Your task to perform on an android device: change the upload size in google photos Image 0: 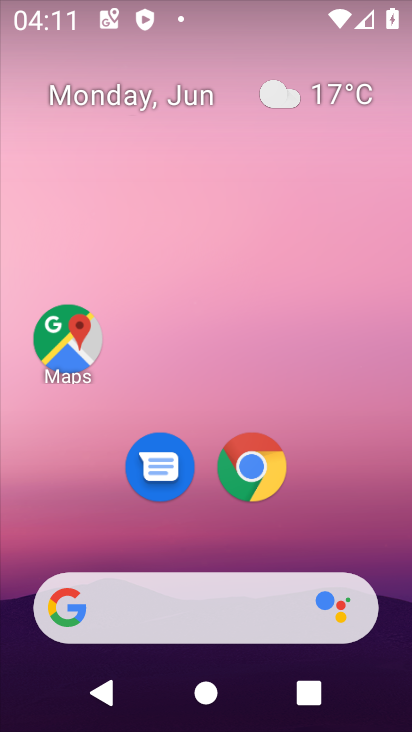
Step 0: drag from (236, 535) to (390, 0)
Your task to perform on an android device: change the upload size in google photos Image 1: 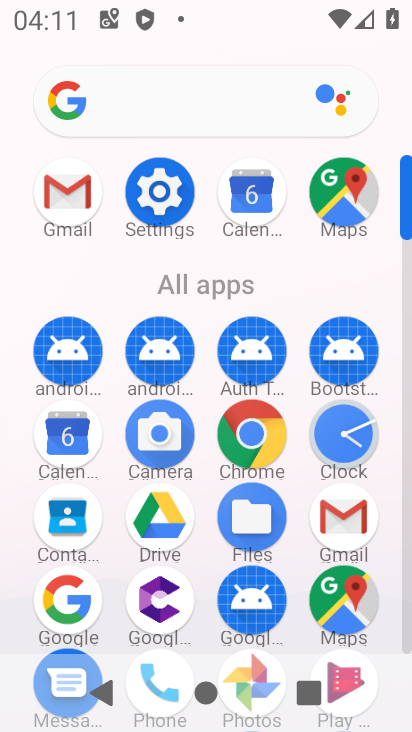
Step 1: drag from (205, 589) to (210, 237)
Your task to perform on an android device: change the upload size in google photos Image 2: 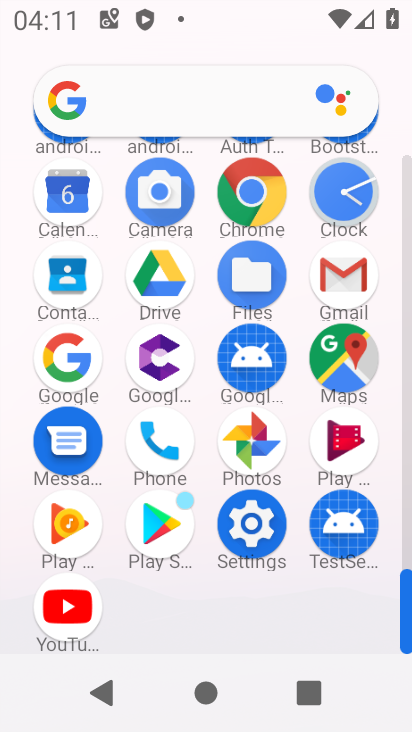
Step 2: click (245, 450)
Your task to perform on an android device: change the upload size in google photos Image 3: 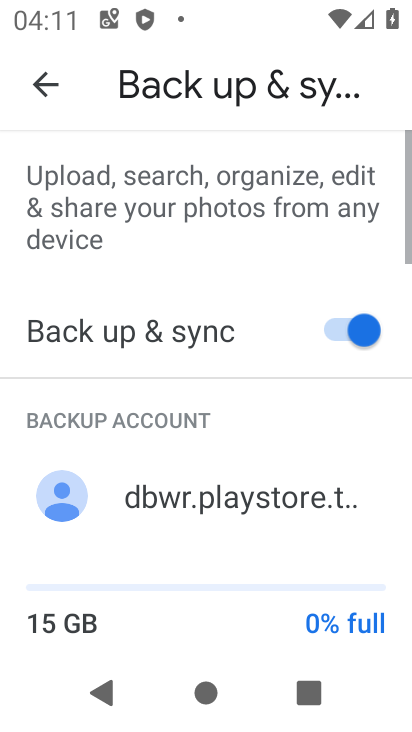
Step 3: click (46, 89)
Your task to perform on an android device: change the upload size in google photos Image 4: 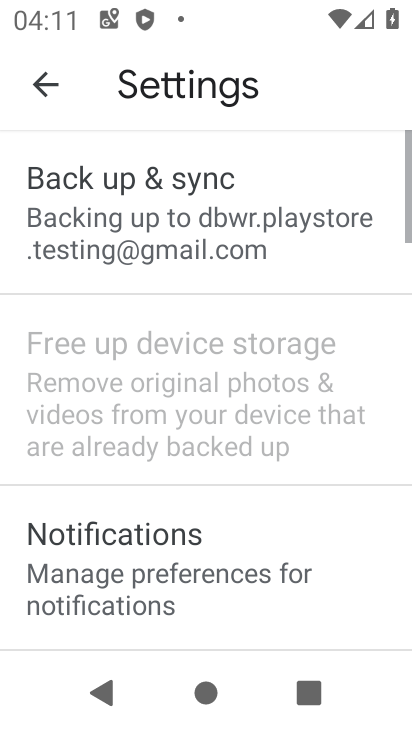
Step 4: click (164, 239)
Your task to perform on an android device: change the upload size in google photos Image 5: 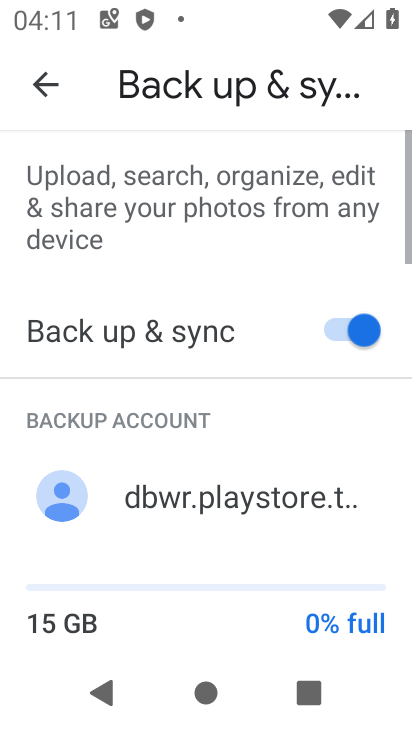
Step 5: drag from (254, 517) to (307, 135)
Your task to perform on an android device: change the upload size in google photos Image 6: 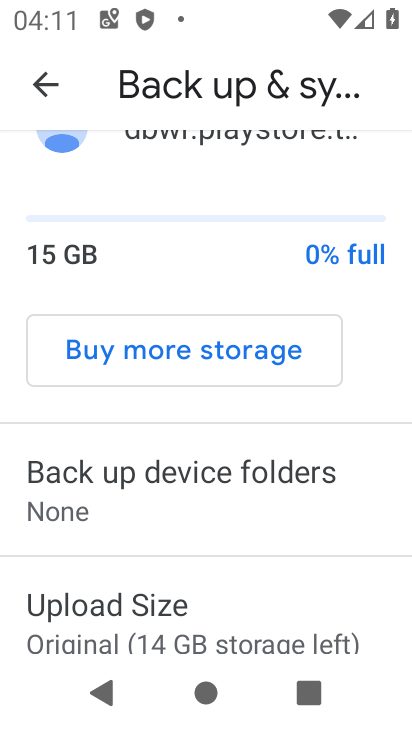
Step 6: drag from (293, 559) to (323, 294)
Your task to perform on an android device: change the upload size in google photos Image 7: 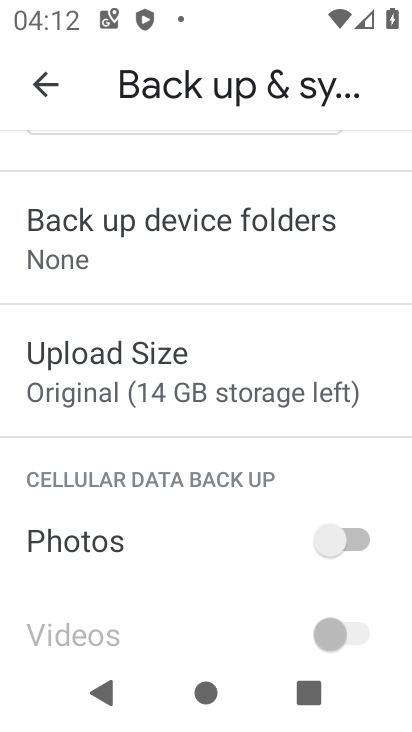
Step 7: click (113, 388)
Your task to perform on an android device: change the upload size in google photos Image 8: 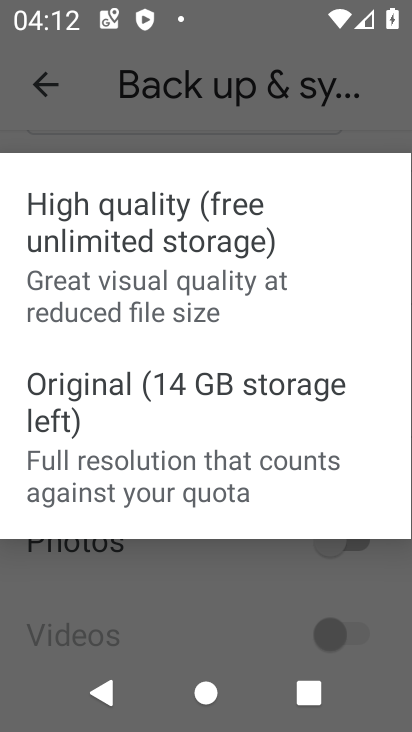
Step 8: click (113, 245)
Your task to perform on an android device: change the upload size in google photos Image 9: 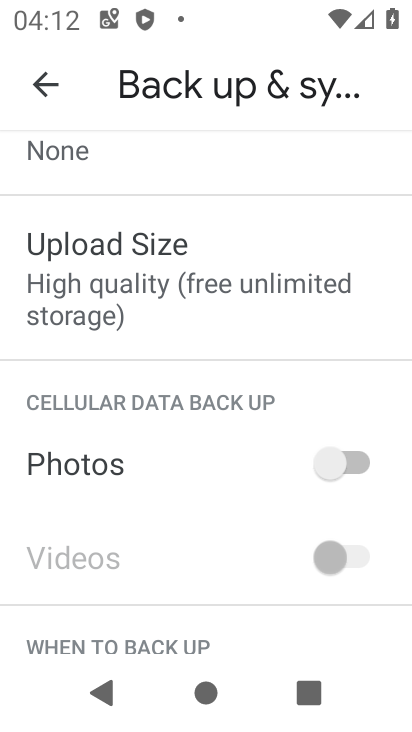
Step 9: task complete